Your task to perform on an android device: change the clock display to show seconds Image 0: 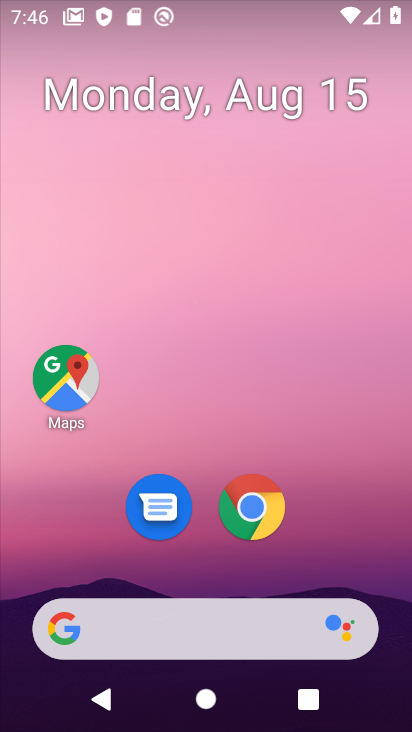
Step 0: task complete